Your task to perform on an android device: Open internet settings Image 0: 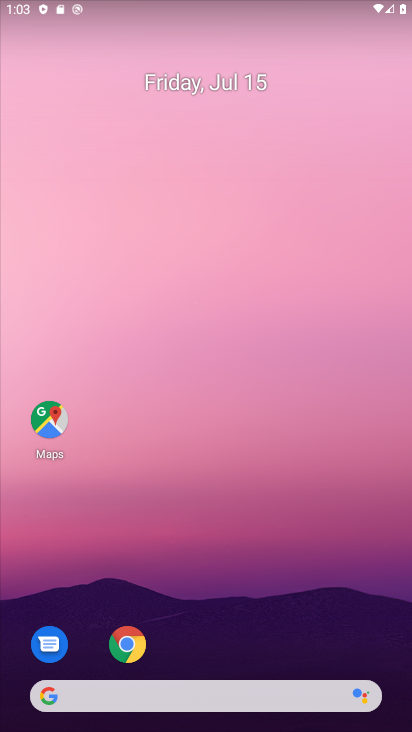
Step 0: drag from (356, 639) to (20, 49)
Your task to perform on an android device: Open internet settings Image 1: 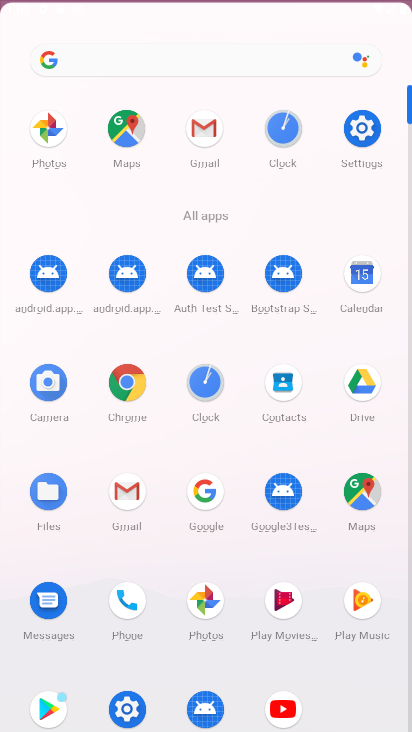
Step 1: click (390, 122)
Your task to perform on an android device: Open internet settings Image 2: 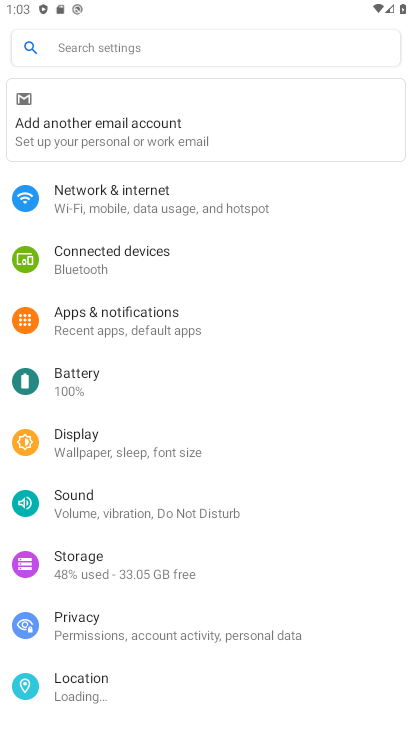
Step 2: click (157, 208)
Your task to perform on an android device: Open internet settings Image 3: 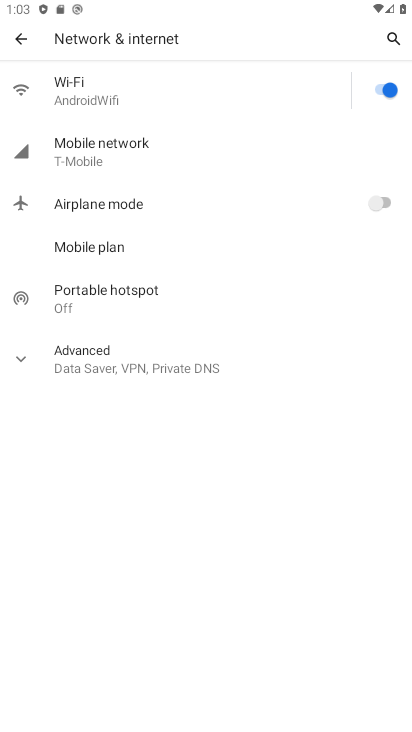
Step 3: task complete